Your task to perform on an android device: turn off priority inbox in the gmail app Image 0: 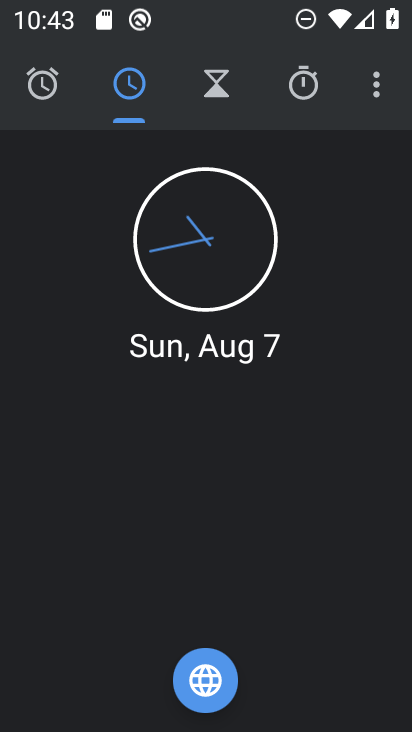
Step 0: press back button
Your task to perform on an android device: turn off priority inbox in the gmail app Image 1: 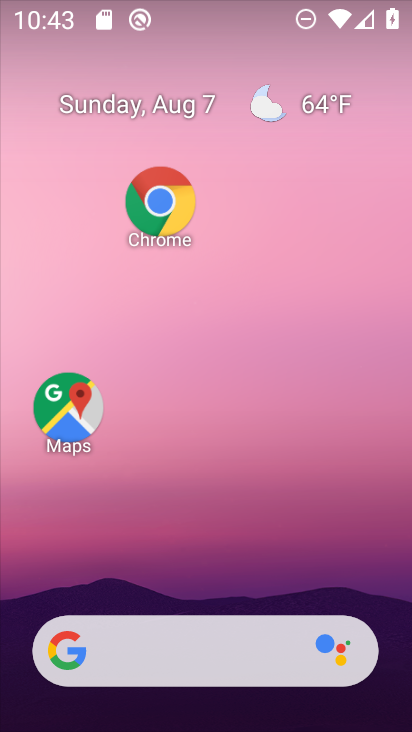
Step 1: drag from (143, 585) to (381, 15)
Your task to perform on an android device: turn off priority inbox in the gmail app Image 2: 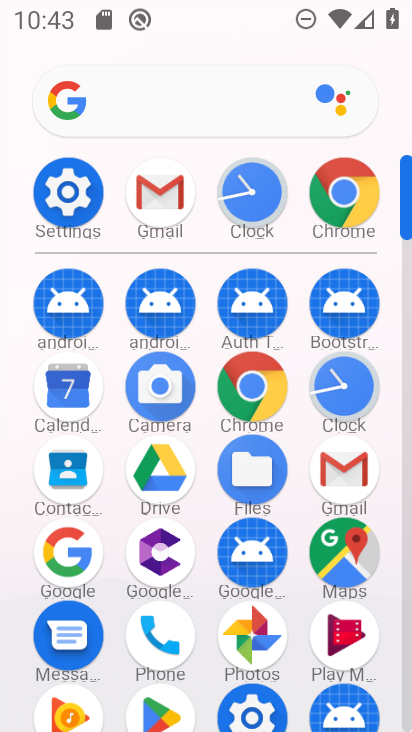
Step 2: click (357, 461)
Your task to perform on an android device: turn off priority inbox in the gmail app Image 3: 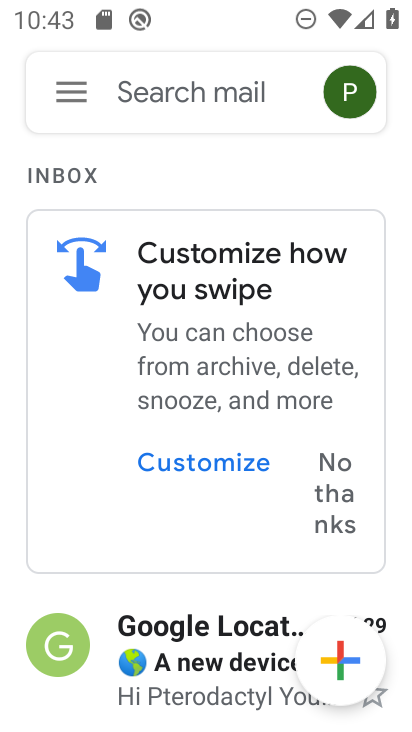
Step 3: click (52, 85)
Your task to perform on an android device: turn off priority inbox in the gmail app Image 4: 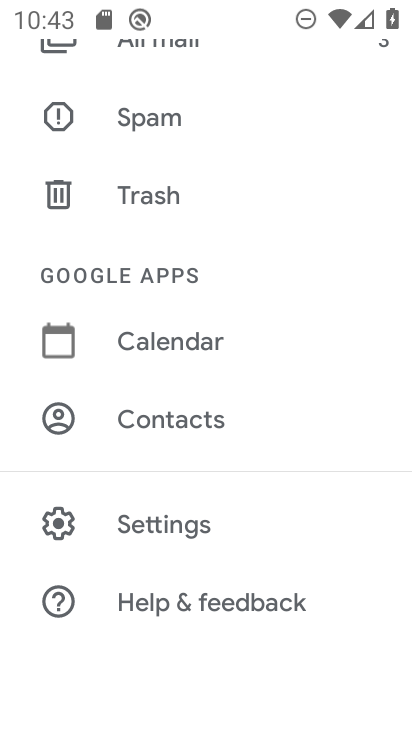
Step 4: click (137, 521)
Your task to perform on an android device: turn off priority inbox in the gmail app Image 5: 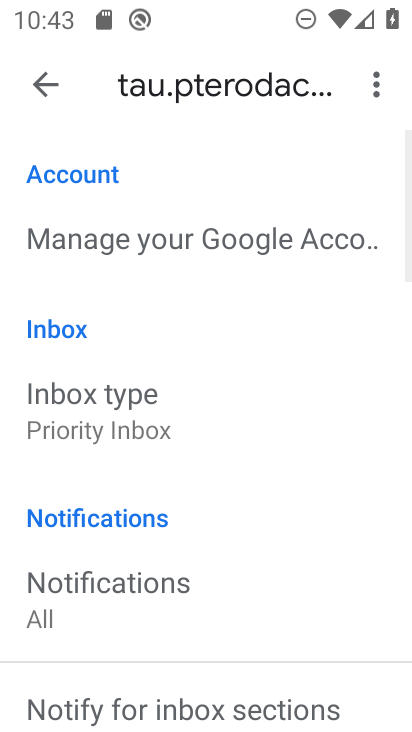
Step 5: click (108, 441)
Your task to perform on an android device: turn off priority inbox in the gmail app Image 6: 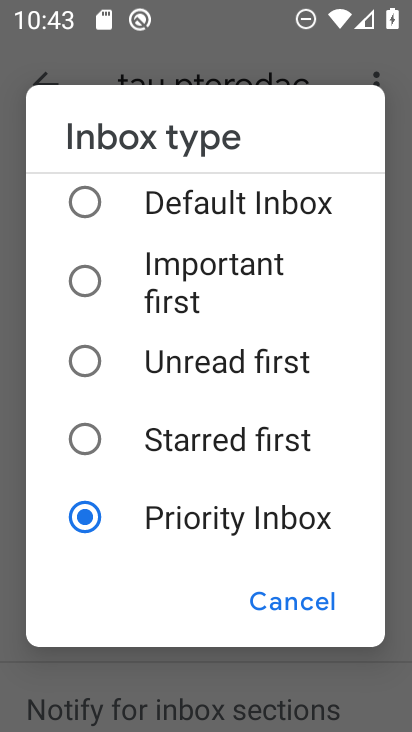
Step 6: click (234, 210)
Your task to perform on an android device: turn off priority inbox in the gmail app Image 7: 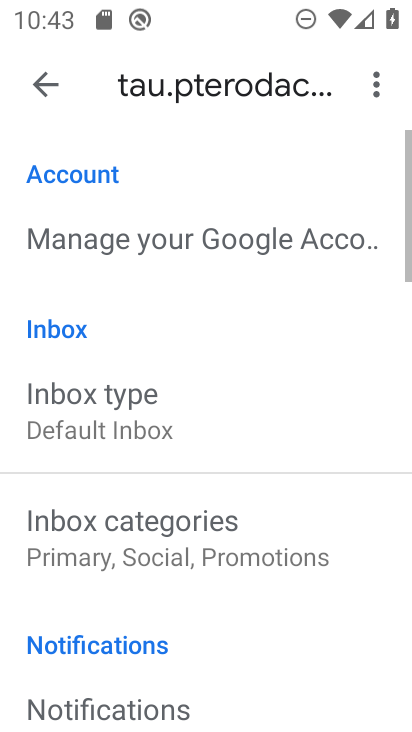
Step 7: task complete